Your task to perform on an android device: read, delete, or share a saved page in the chrome app Image 0: 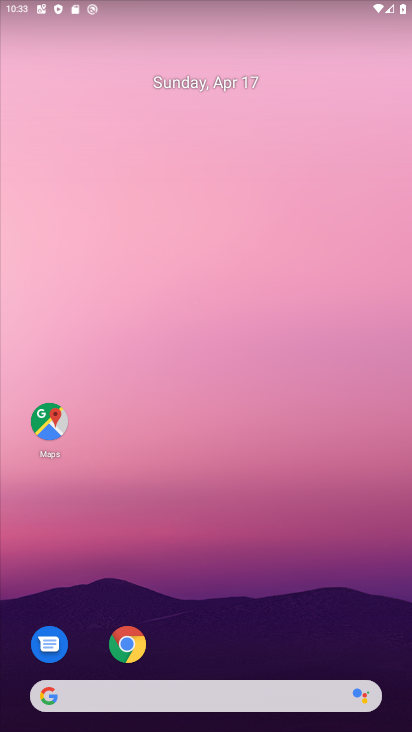
Step 0: click (134, 642)
Your task to perform on an android device: read, delete, or share a saved page in the chrome app Image 1: 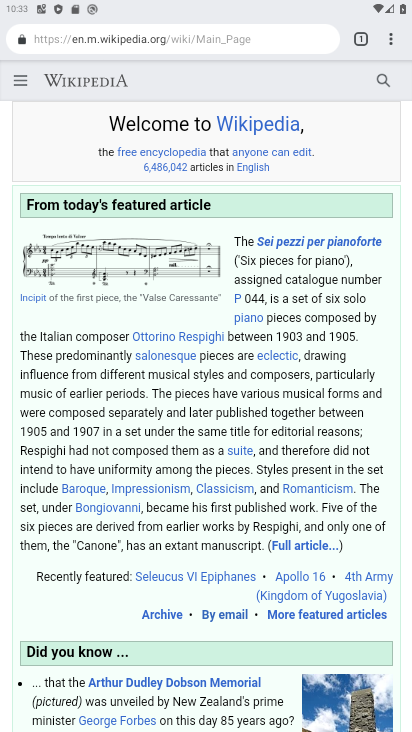
Step 1: click (390, 37)
Your task to perform on an android device: read, delete, or share a saved page in the chrome app Image 2: 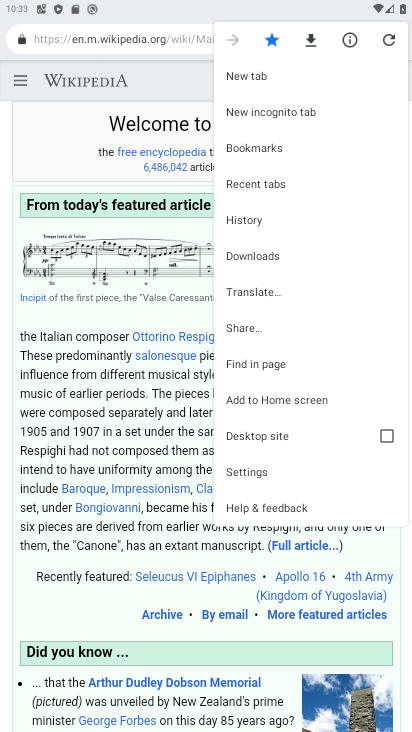
Step 2: click (258, 469)
Your task to perform on an android device: read, delete, or share a saved page in the chrome app Image 3: 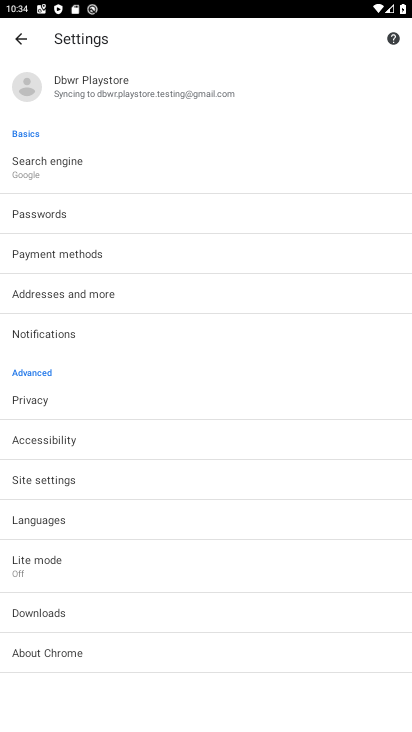
Step 3: click (18, 27)
Your task to perform on an android device: read, delete, or share a saved page in the chrome app Image 4: 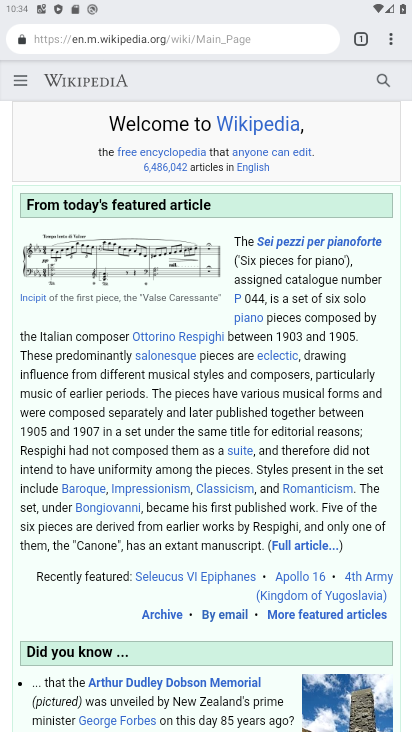
Step 4: click (388, 37)
Your task to perform on an android device: read, delete, or share a saved page in the chrome app Image 5: 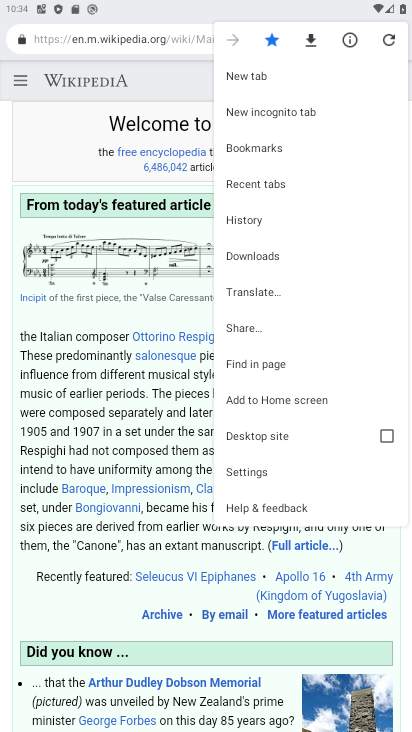
Step 5: click (395, 36)
Your task to perform on an android device: read, delete, or share a saved page in the chrome app Image 6: 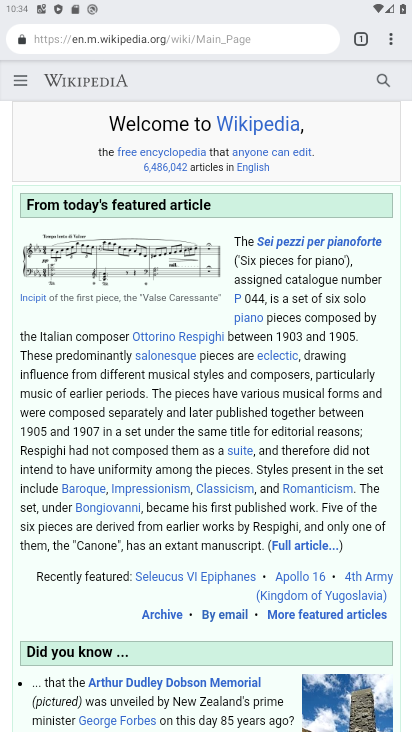
Step 6: click (395, 37)
Your task to perform on an android device: read, delete, or share a saved page in the chrome app Image 7: 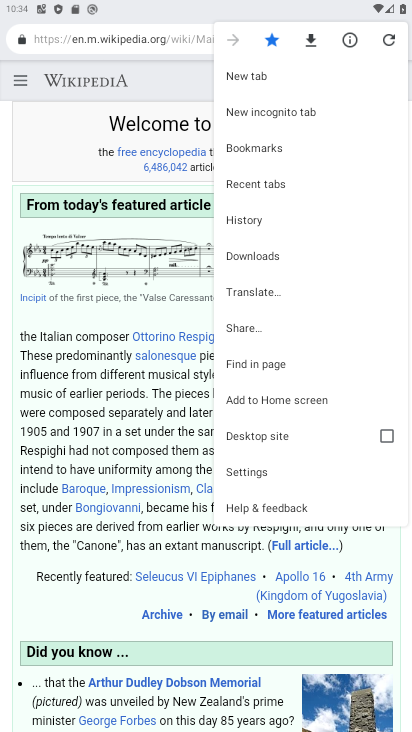
Step 7: click (270, 249)
Your task to perform on an android device: read, delete, or share a saved page in the chrome app Image 8: 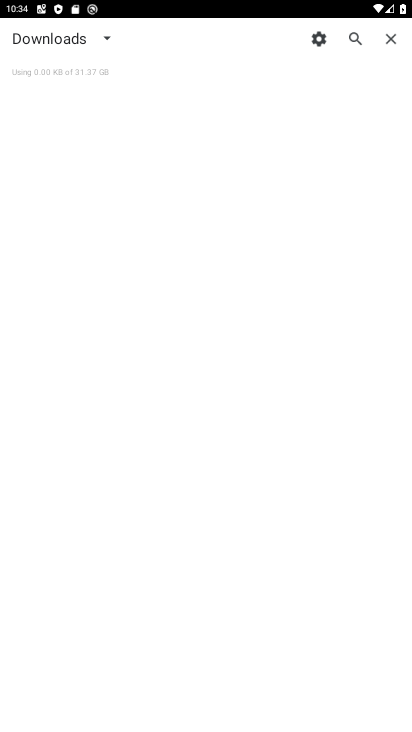
Step 8: task complete